Your task to perform on an android device: Search for the ikea billy bookcase Image 0: 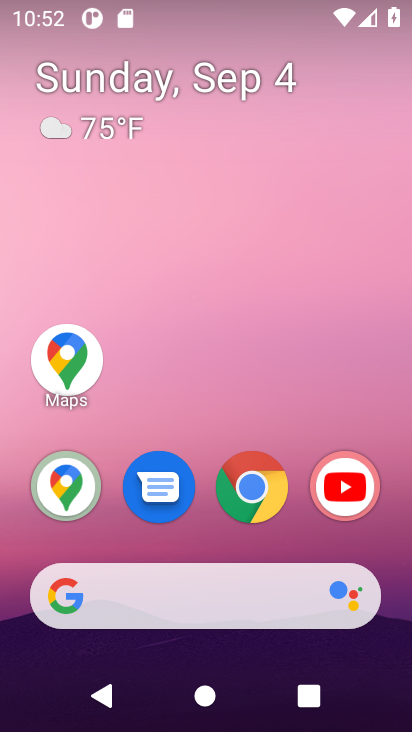
Step 0: click (325, 497)
Your task to perform on an android device: Search for the ikea billy bookcase Image 1: 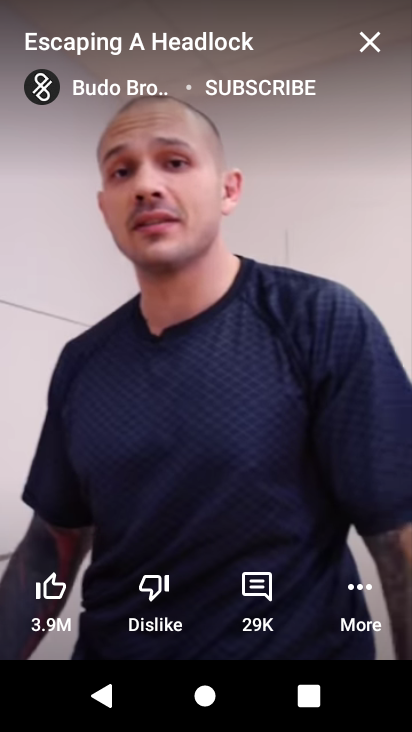
Step 1: task complete